Your task to perform on an android device: Open my contact list Image 0: 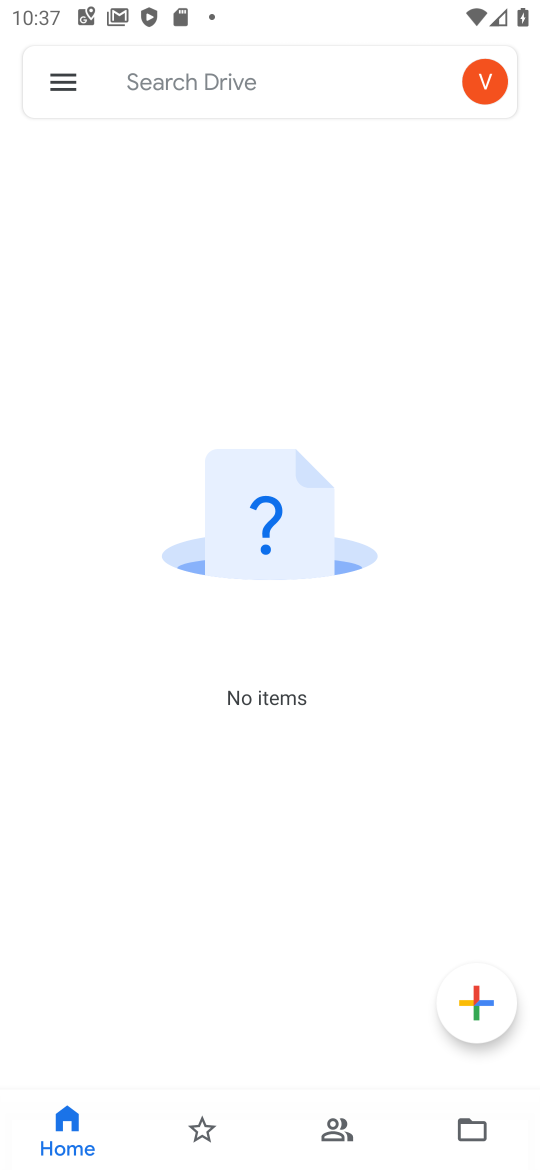
Step 0: press home button
Your task to perform on an android device: Open my contact list Image 1: 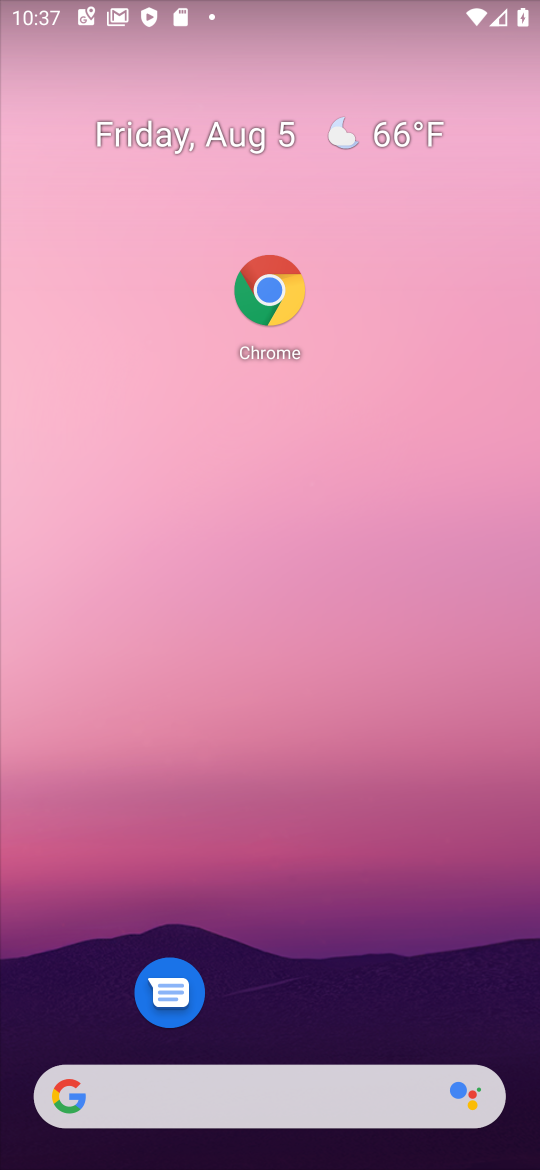
Step 1: drag from (277, 1006) to (304, 26)
Your task to perform on an android device: Open my contact list Image 2: 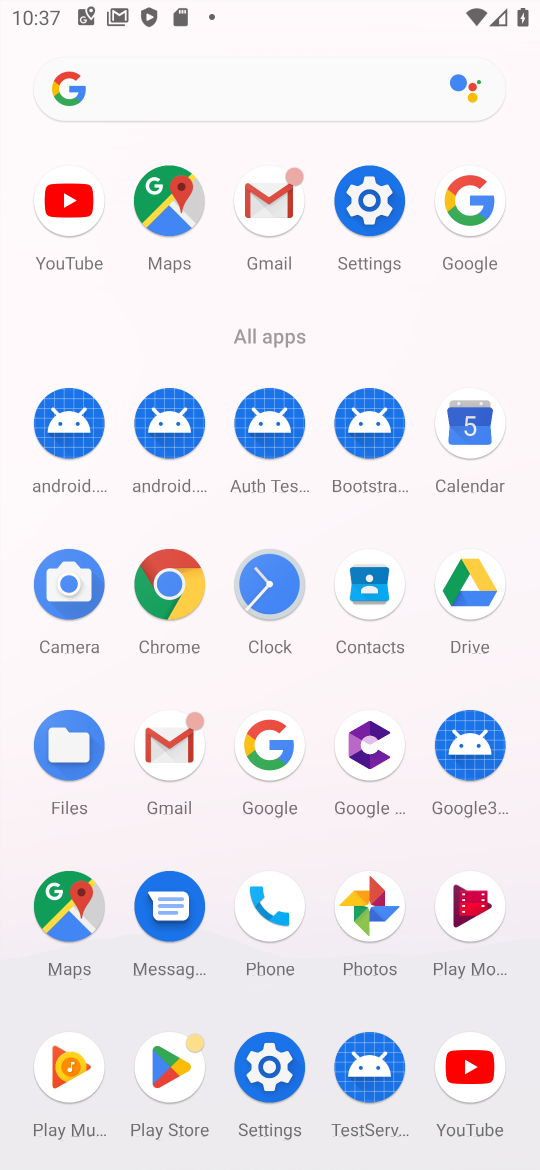
Step 2: click (256, 919)
Your task to perform on an android device: Open my contact list Image 3: 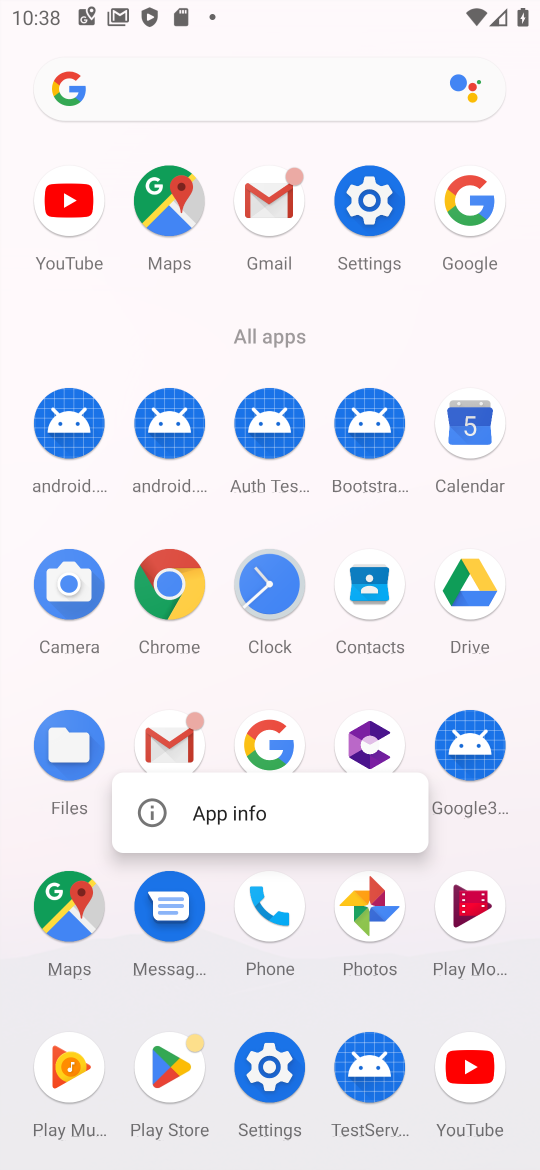
Step 3: click (257, 908)
Your task to perform on an android device: Open my contact list Image 4: 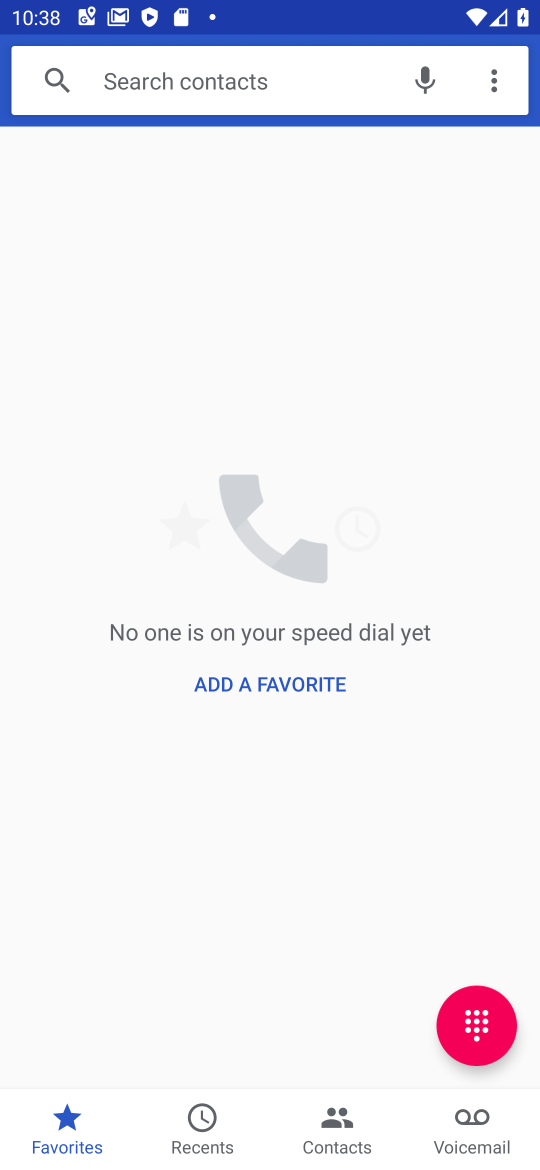
Step 4: click (319, 1123)
Your task to perform on an android device: Open my contact list Image 5: 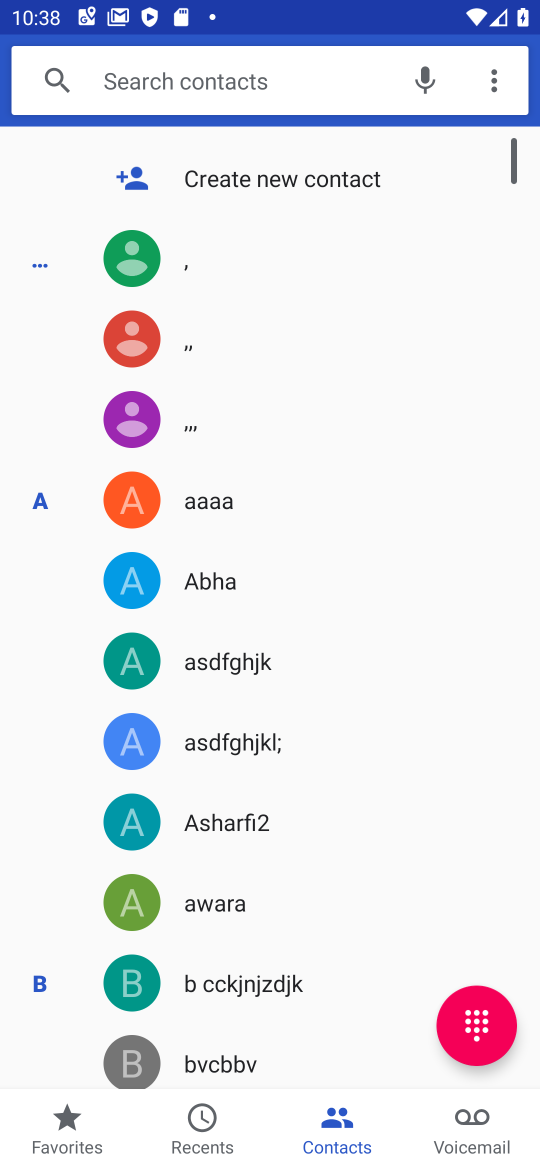
Step 5: task complete